Your task to perform on an android device: Go to Wikipedia Image 0: 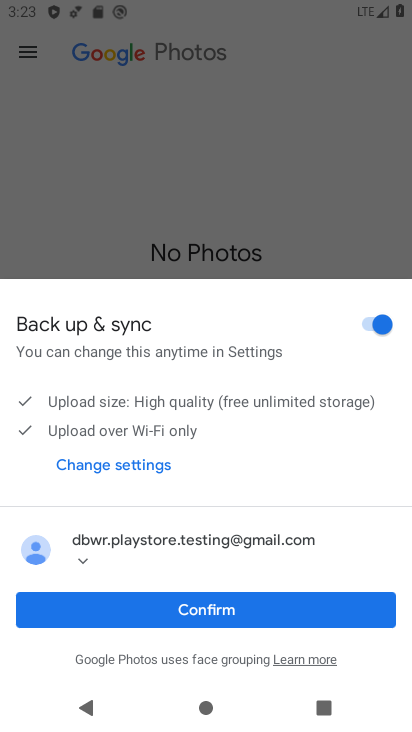
Step 0: press home button
Your task to perform on an android device: Go to Wikipedia Image 1: 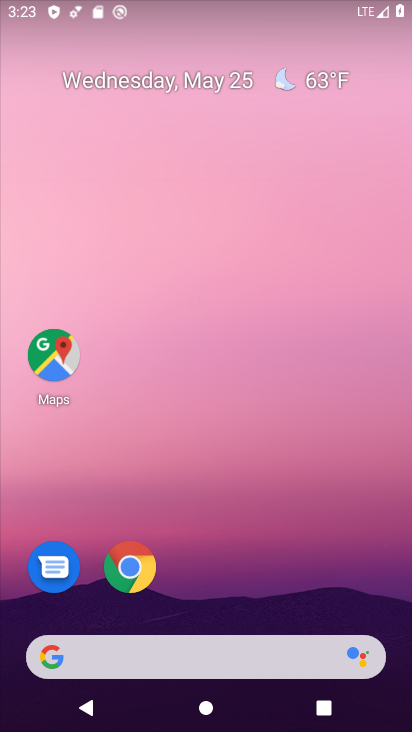
Step 1: drag from (353, 587) to (315, 72)
Your task to perform on an android device: Go to Wikipedia Image 2: 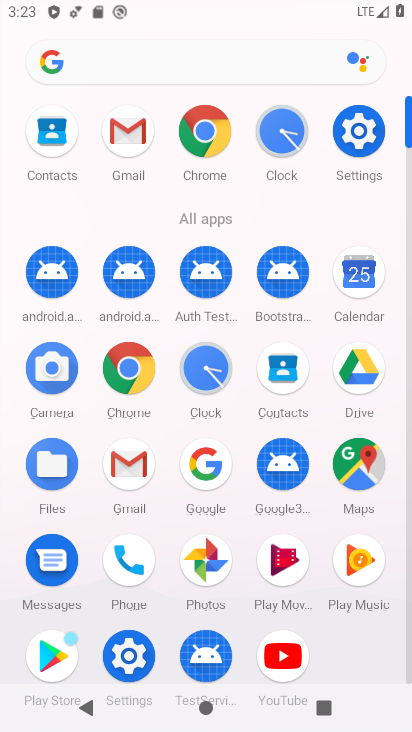
Step 2: click (134, 370)
Your task to perform on an android device: Go to Wikipedia Image 3: 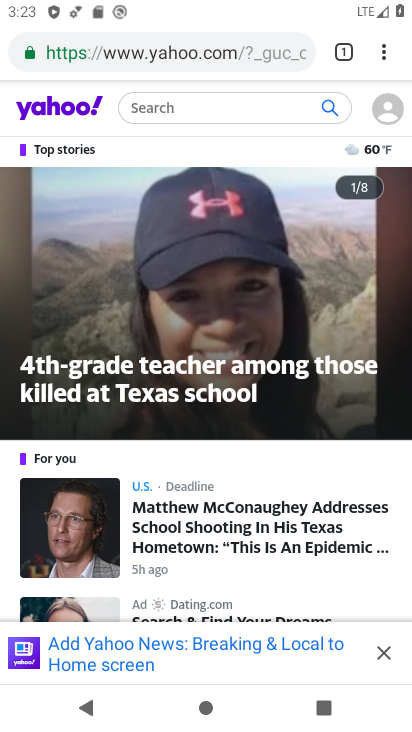
Step 3: drag from (386, 52) to (209, 107)
Your task to perform on an android device: Go to Wikipedia Image 4: 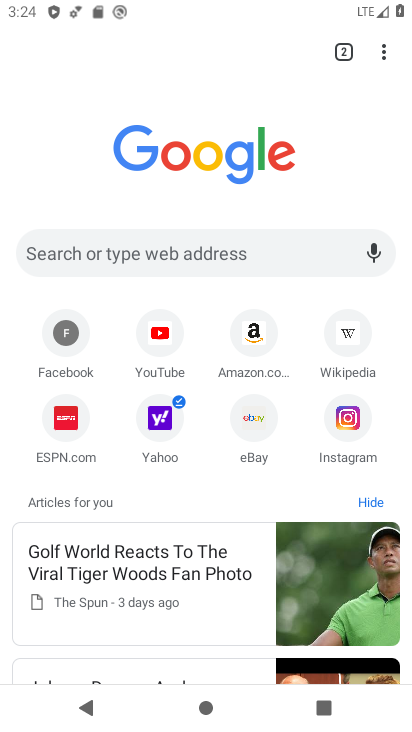
Step 4: click (353, 335)
Your task to perform on an android device: Go to Wikipedia Image 5: 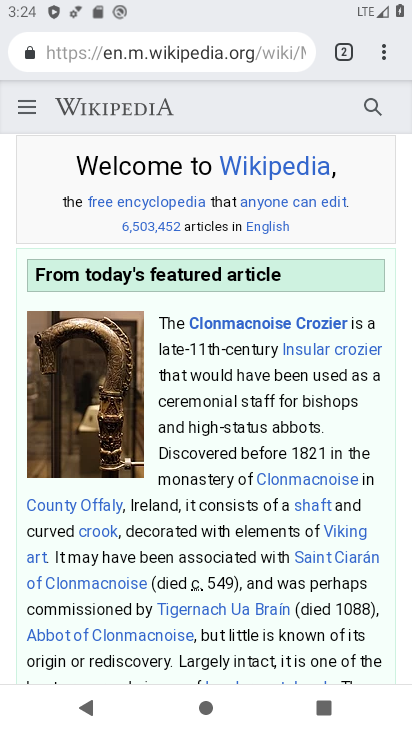
Step 5: task complete